Your task to perform on an android device: Open the Play Movies app and select the watchlist tab. Image 0: 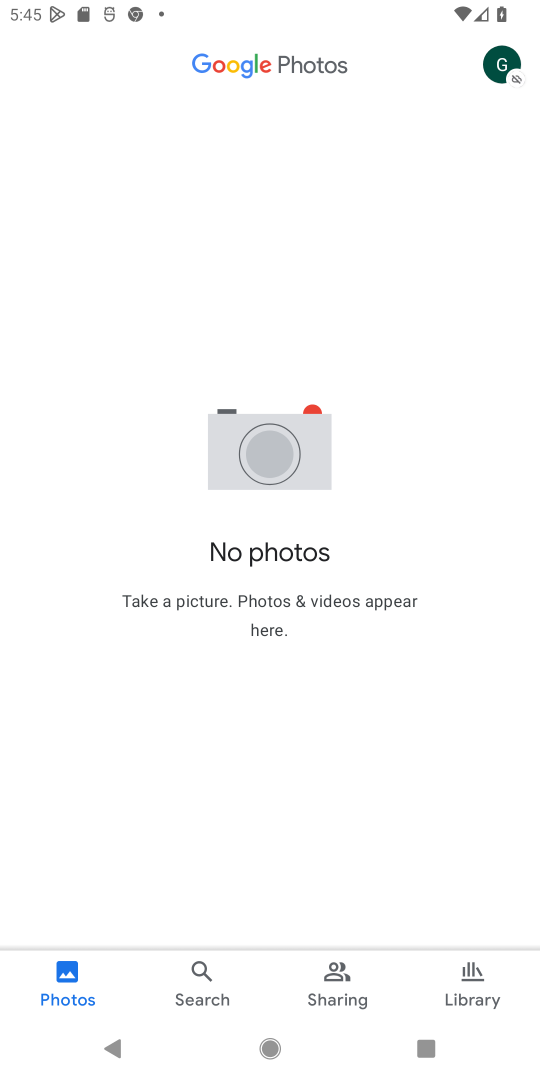
Step 0: press home button
Your task to perform on an android device: Open the Play Movies app and select the watchlist tab. Image 1: 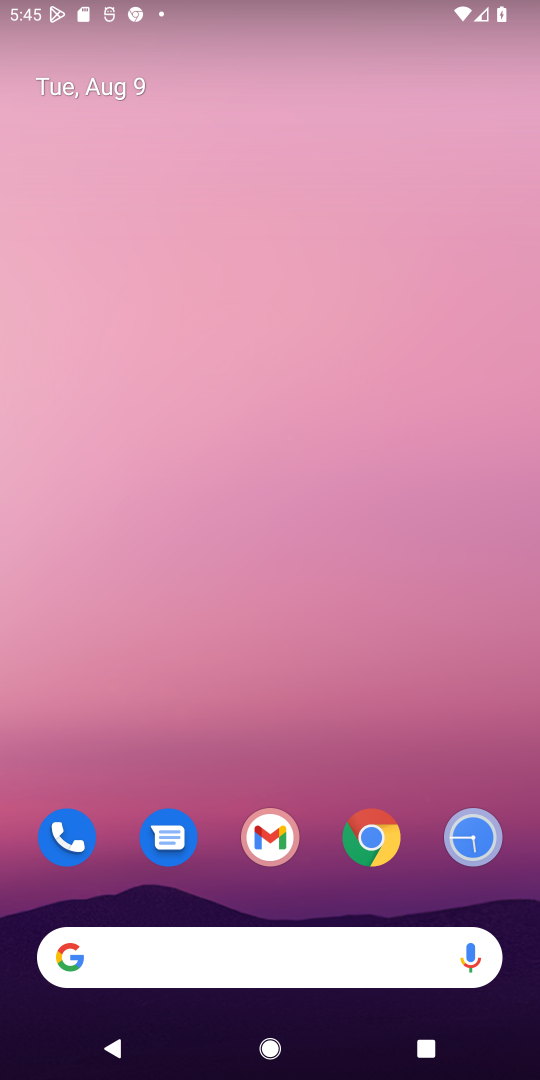
Step 1: drag from (107, 1028) to (122, 170)
Your task to perform on an android device: Open the Play Movies app and select the watchlist tab. Image 2: 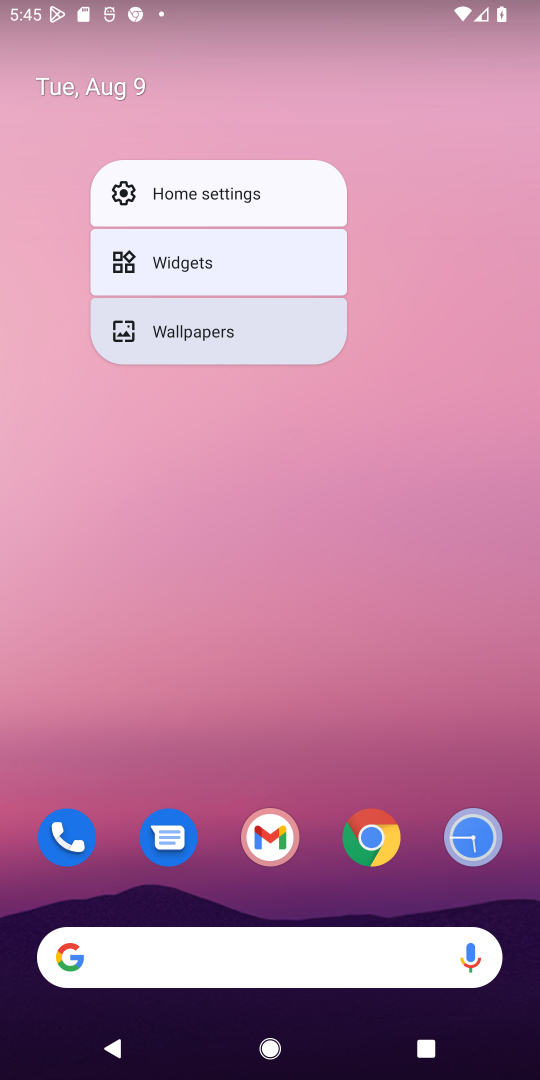
Step 2: click (271, 766)
Your task to perform on an android device: Open the Play Movies app and select the watchlist tab. Image 3: 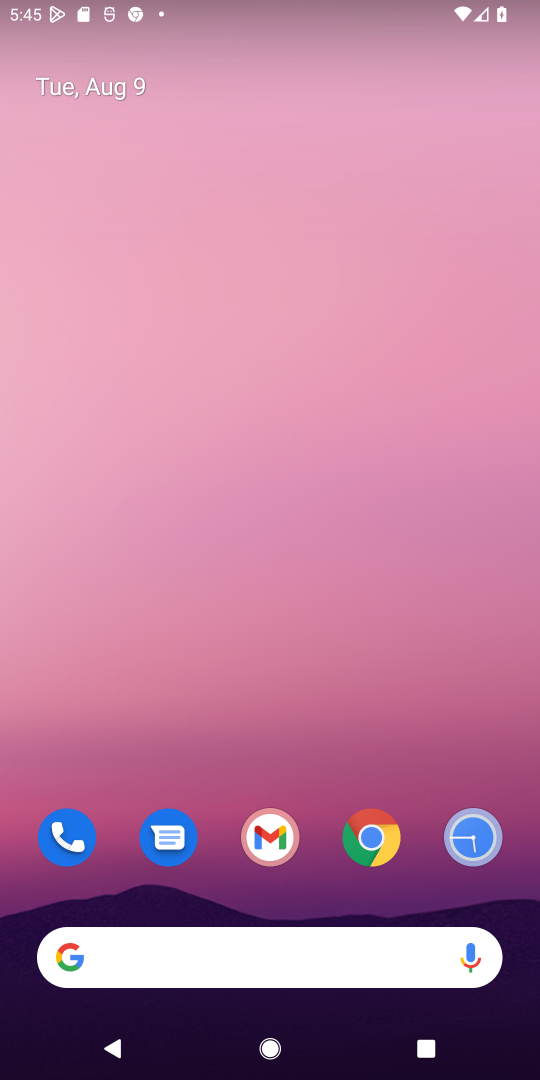
Step 3: drag from (240, 994) to (249, 476)
Your task to perform on an android device: Open the Play Movies app and select the watchlist tab. Image 4: 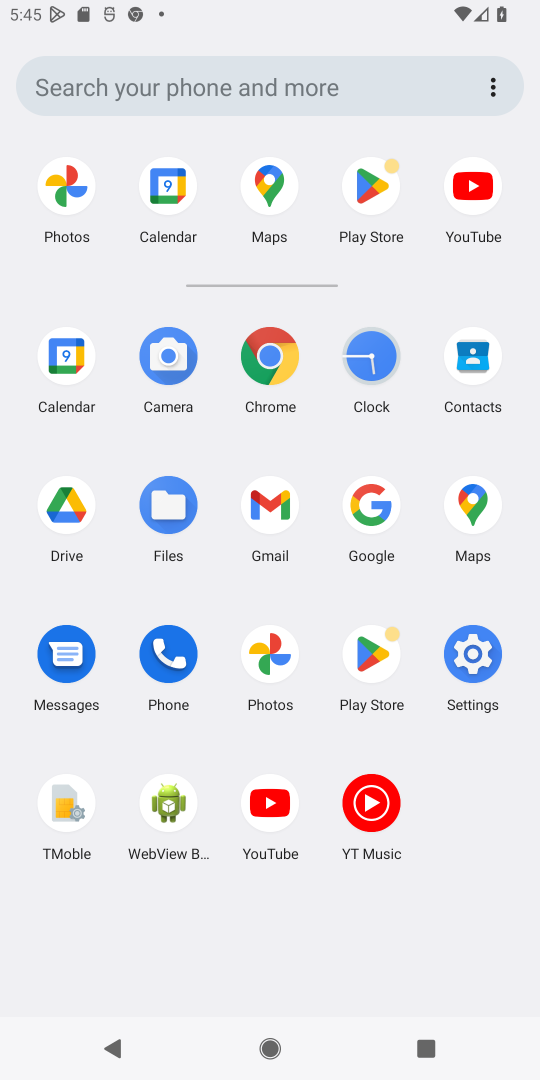
Step 4: click (377, 808)
Your task to perform on an android device: Open the Play Movies app and select the watchlist tab. Image 5: 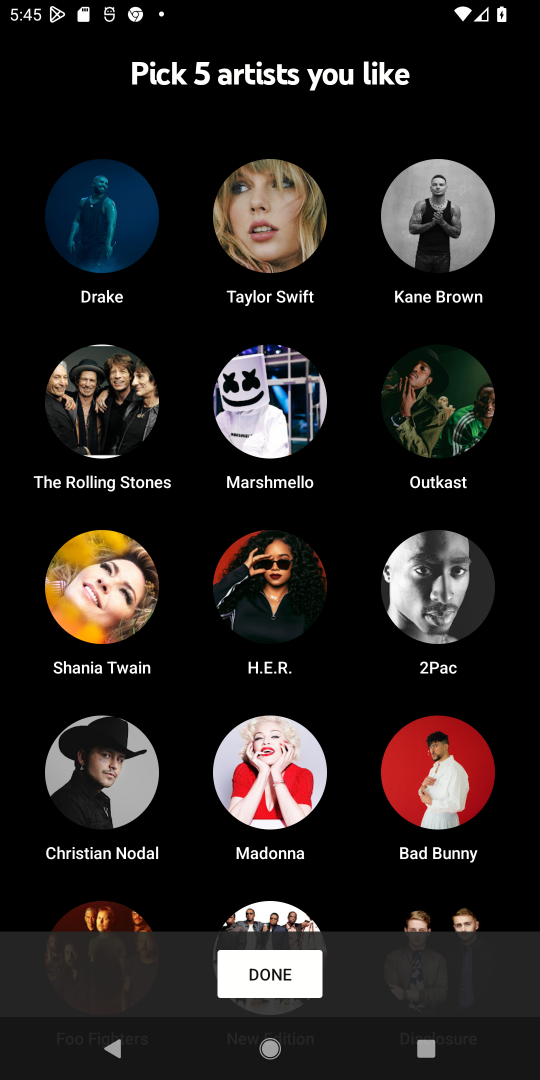
Step 5: click (253, 955)
Your task to perform on an android device: Open the Play Movies app and select the watchlist tab. Image 6: 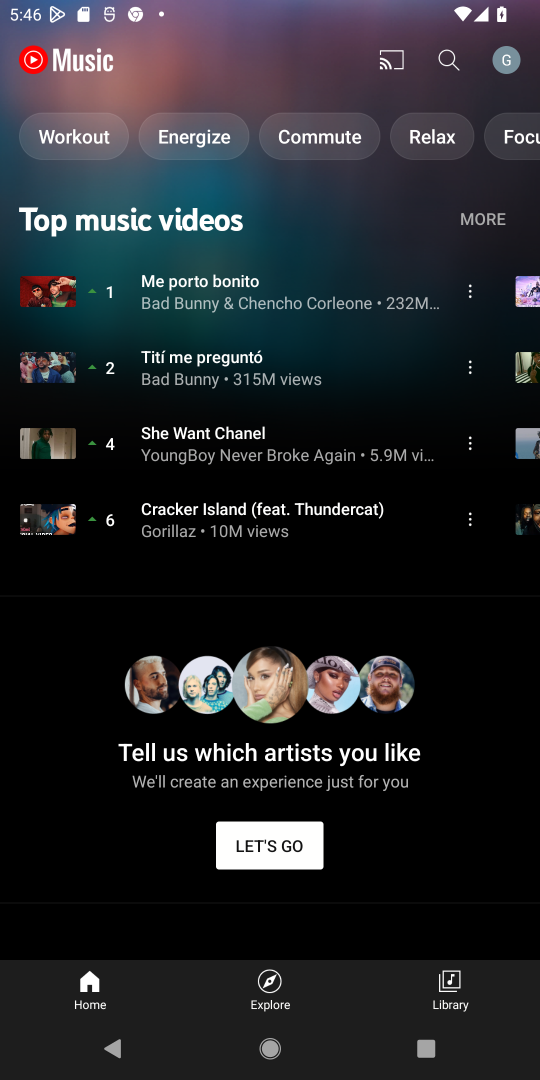
Step 6: press home button
Your task to perform on an android device: Open the Play Movies app and select the watchlist tab. Image 7: 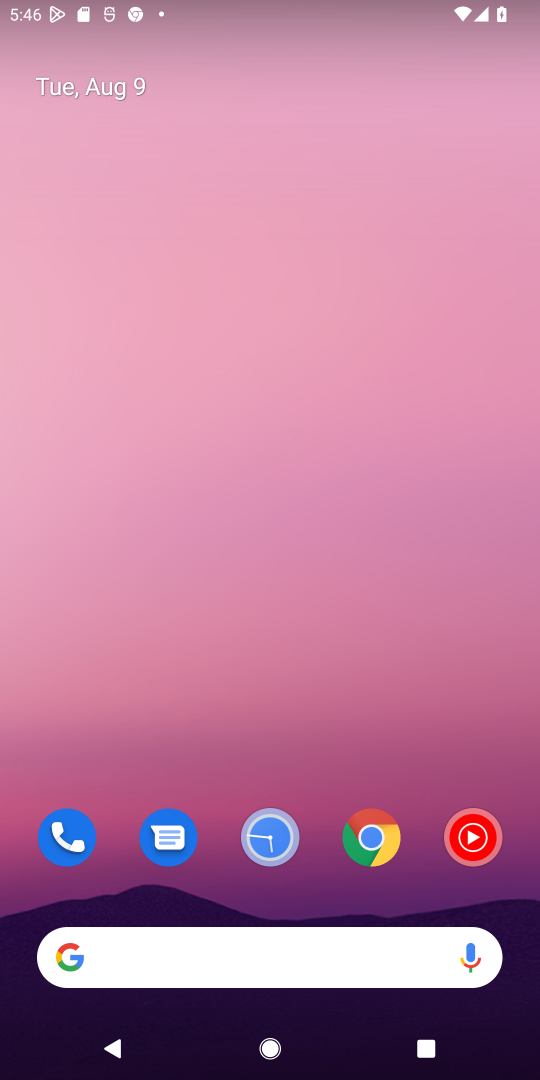
Step 7: drag from (160, 896) to (262, 214)
Your task to perform on an android device: Open the Play Movies app and select the watchlist tab. Image 8: 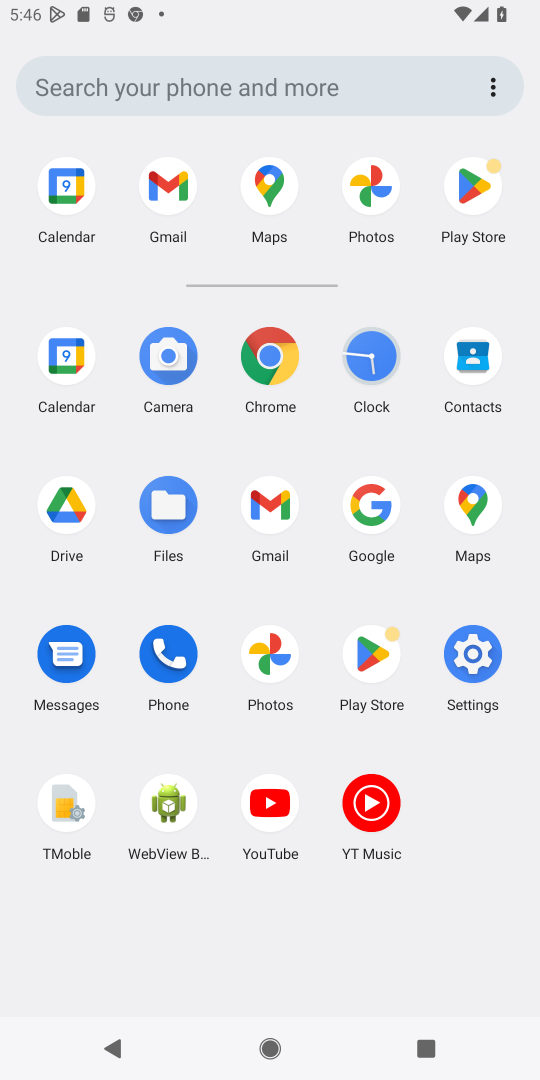
Step 8: click (365, 787)
Your task to perform on an android device: Open the Play Movies app and select the watchlist tab. Image 9: 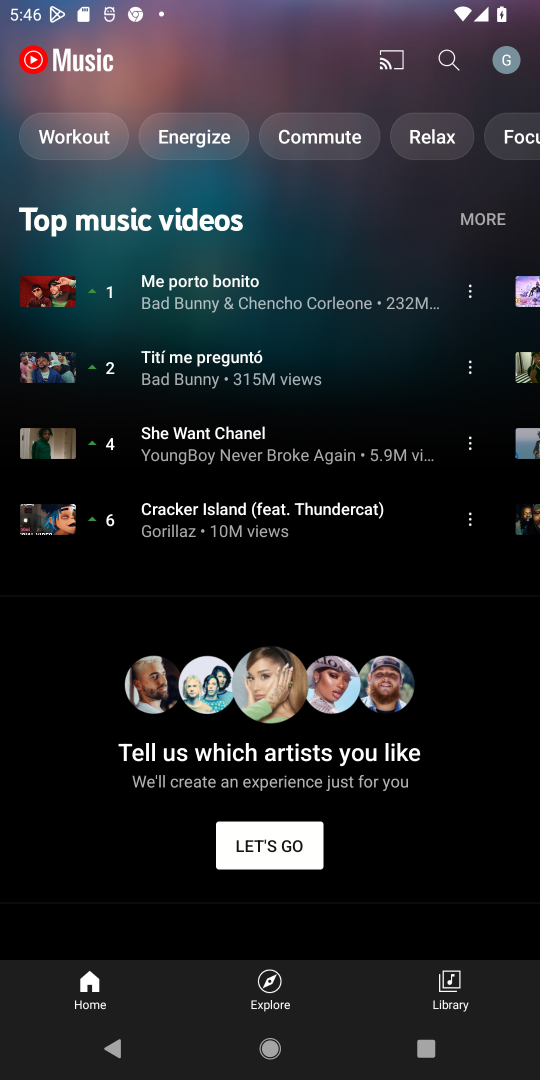
Step 9: task complete